Your task to perform on an android device: Open sound settings Image 0: 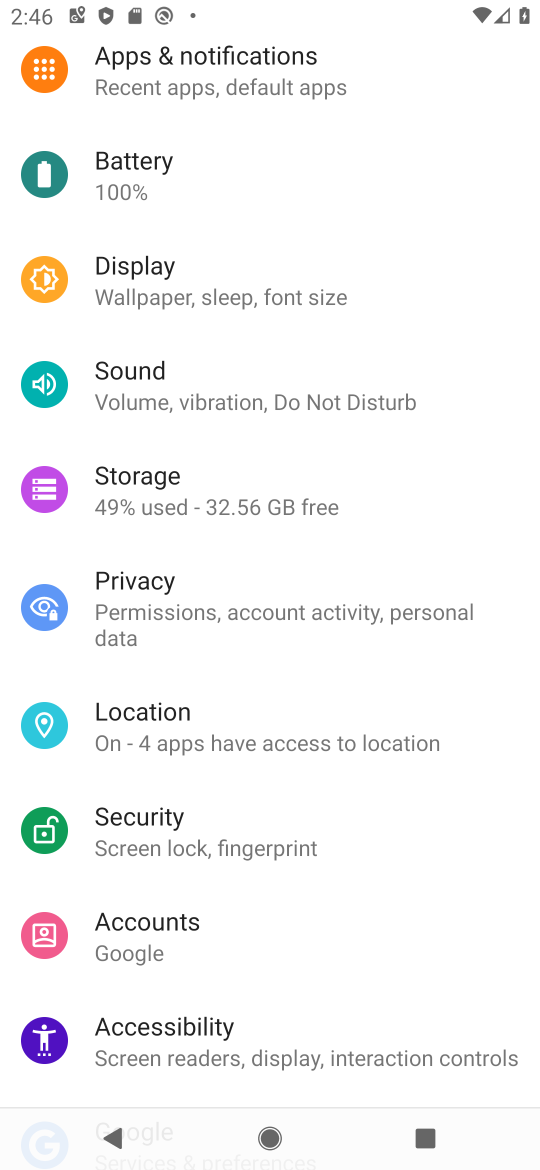
Step 0: click (214, 384)
Your task to perform on an android device: Open sound settings Image 1: 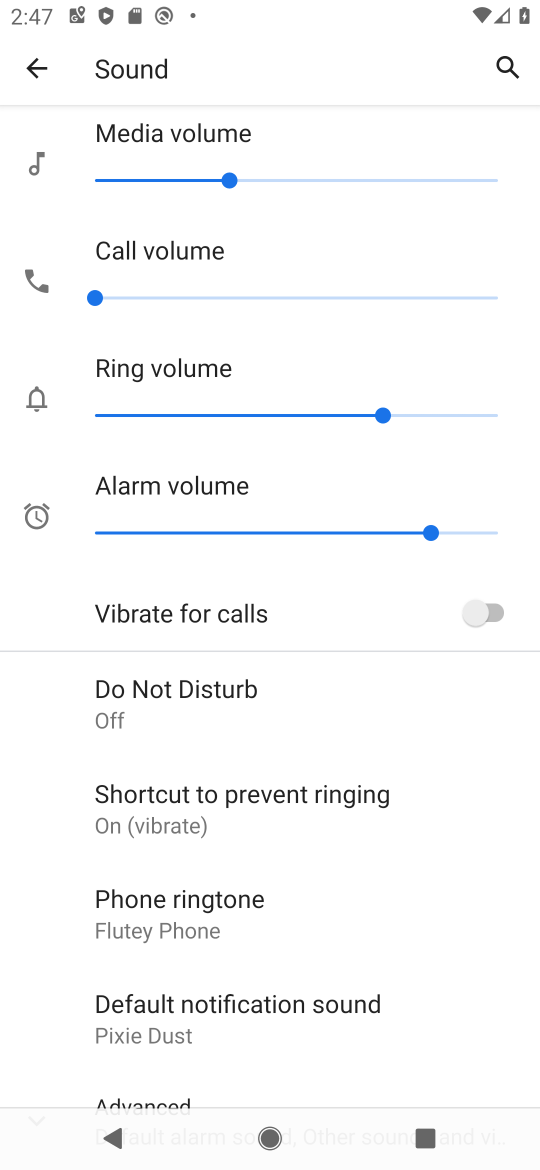
Step 1: task complete